Your task to perform on an android device: turn on sleep mode Image 0: 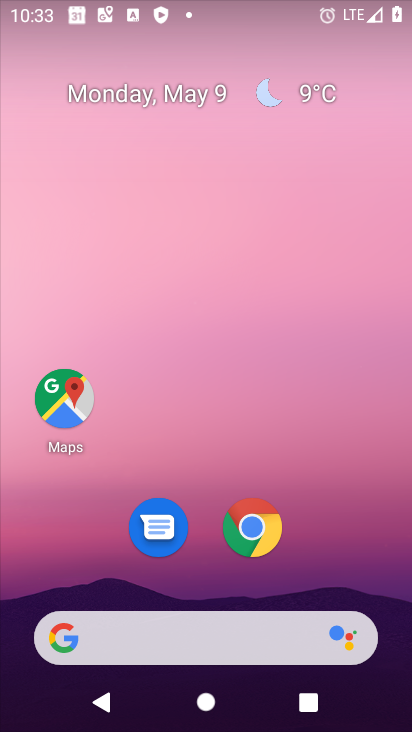
Step 0: drag from (401, 619) to (357, 57)
Your task to perform on an android device: turn on sleep mode Image 1: 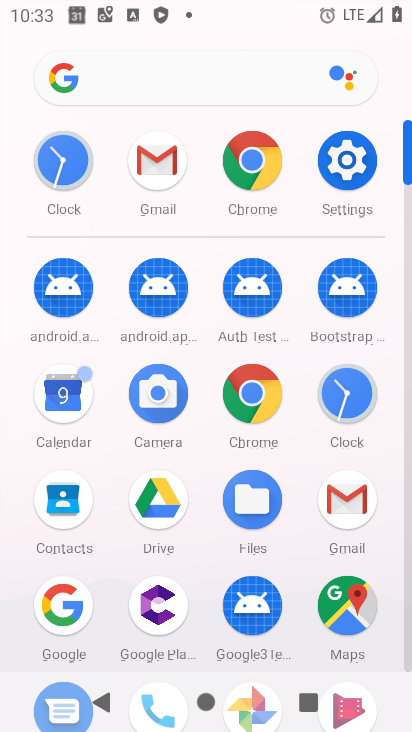
Step 1: click (406, 660)
Your task to perform on an android device: turn on sleep mode Image 2: 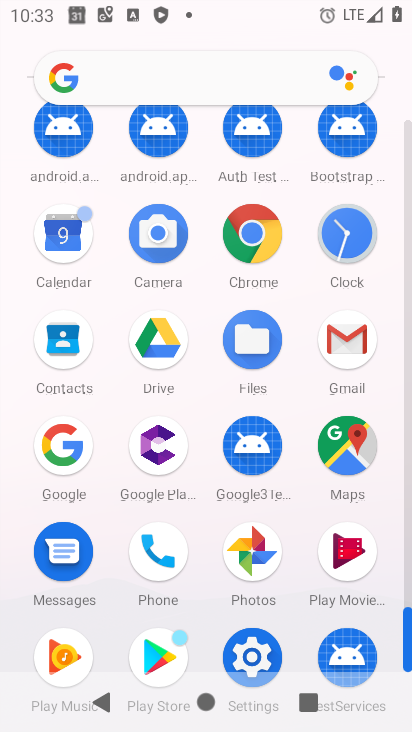
Step 2: click (409, 600)
Your task to perform on an android device: turn on sleep mode Image 3: 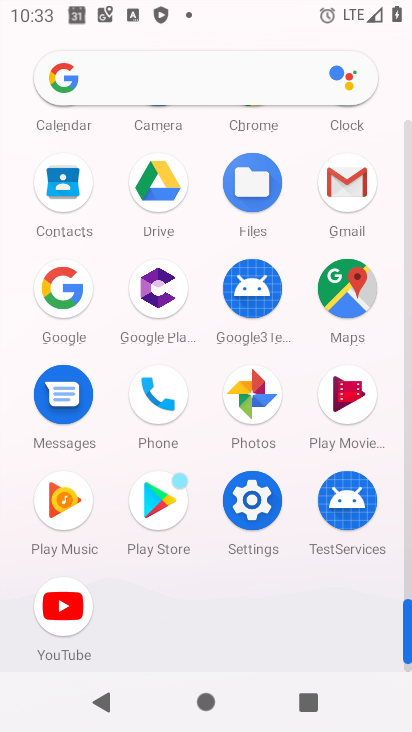
Step 3: click (249, 500)
Your task to perform on an android device: turn on sleep mode Image 4: 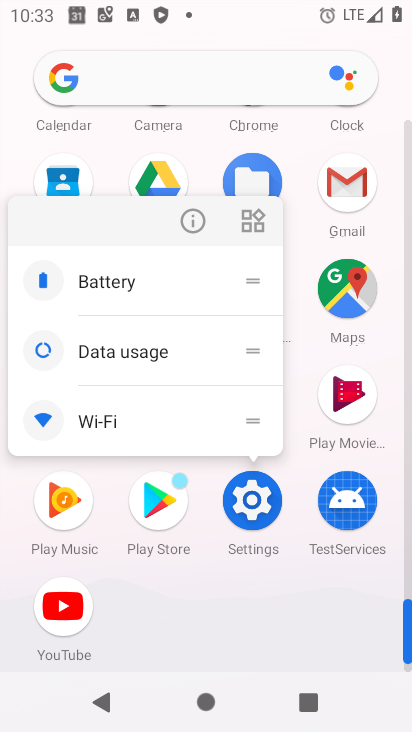
Step 4: click (249, 500)
Your task to perform on an android device: turn on sleep mode Image 5: 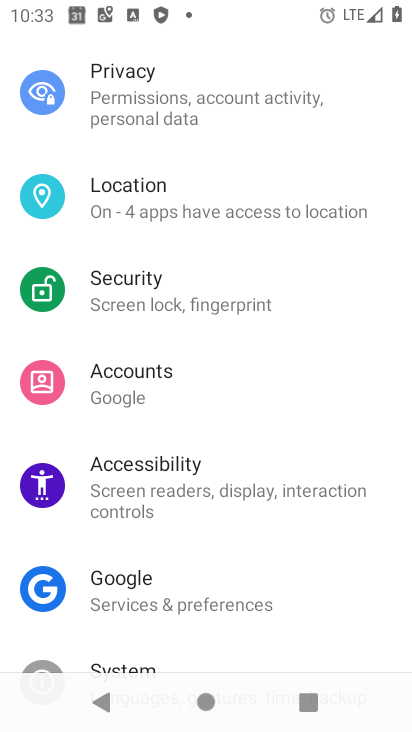
Step 5: drag from (336, 219) to (286, 440)
Your task to perform on an android device: turn on sleep mode Image 6: 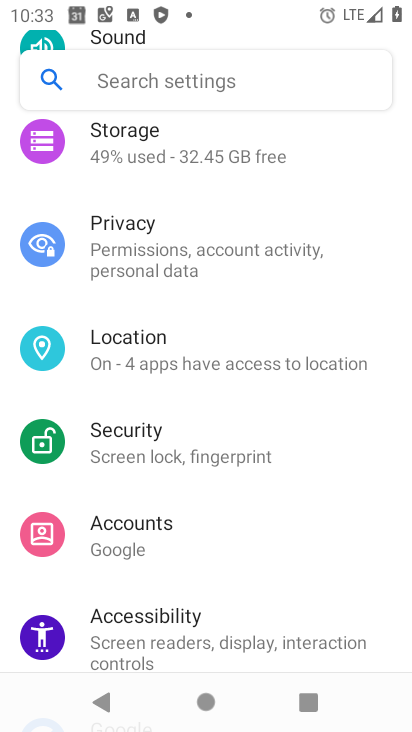
Step 6: drag from (323, 144) to (307, 493)
Your task to perform on an android device: turn on sleep mode Image 7: 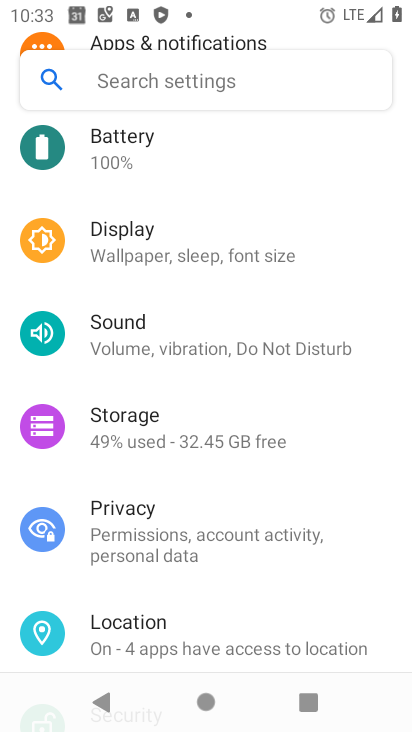
Step 7: click (125, 230)
Your task to perform on an android device: turn on sleep mode Image 8: 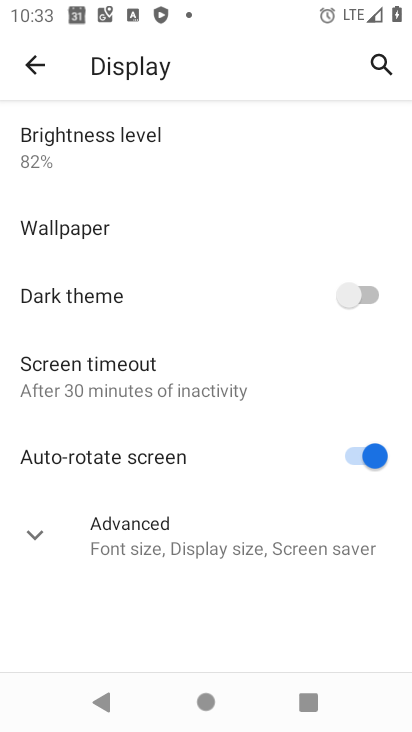
Step 8: click (33, 533)
Your task to perform on an android device: turn on sleep mode Image 9: 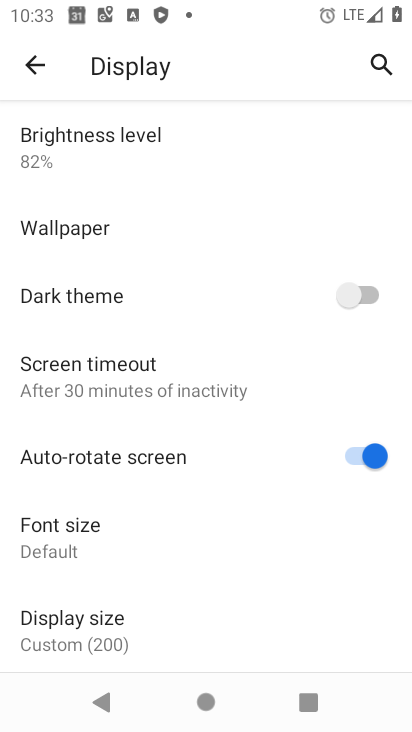
Step 9: task complete